Your task to perform on an android device: When is my next appointment? Image 0: 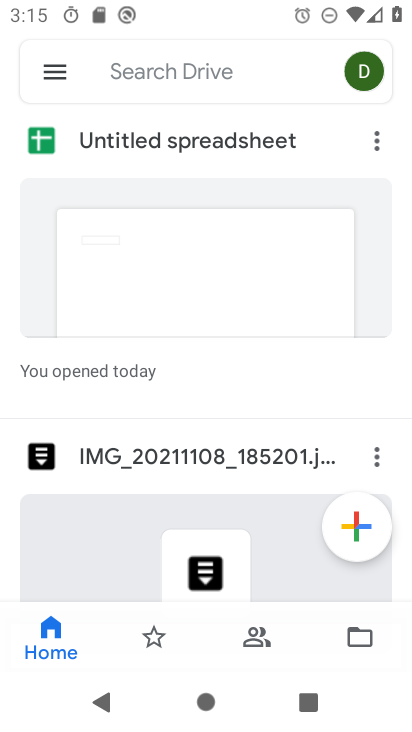
Step 0: drag from (228, 497) to (316, 198)
Your task to perform on an android device: When is my next appointment? Image 1: 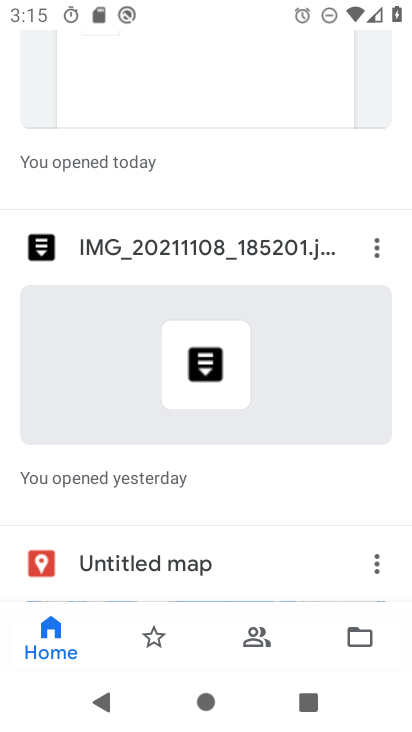
Step 1: press home button
Your task to perform on an android device: When is my next appointment? Image 2: 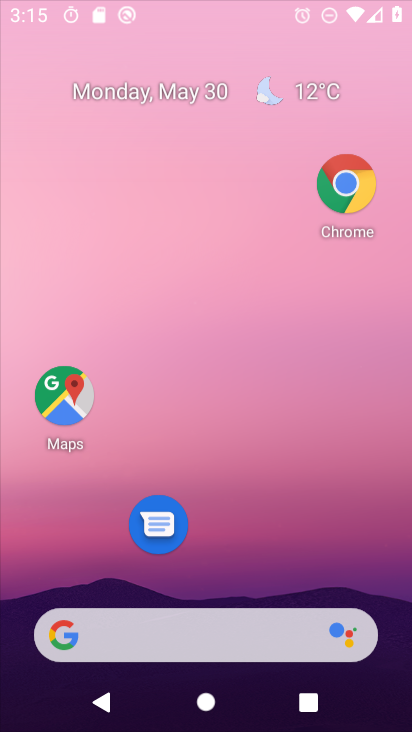
Step 2: drag from (229, 574) to (346, 1)
Your task to perform on an android device: When is my next appointment? Image 3: 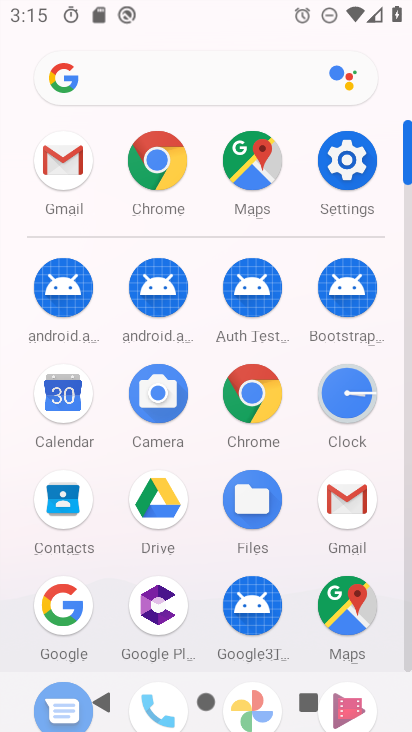
Step 3: click (66, 382)
Your task to perform on an android device: When is my next appointment? Image 4: 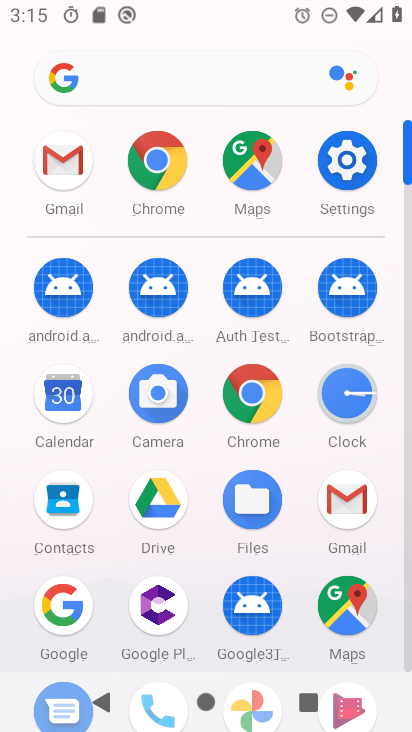
Step 4: click (66, 382)
Your task to perform on an android device: When is my next appointment? Image 5: 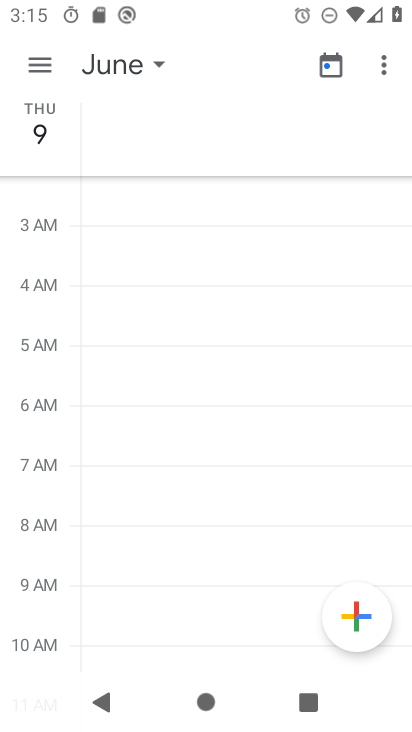
Step 5: click (141, 68)
Your task to perform on an android device: When is my next appointment? Image 6: 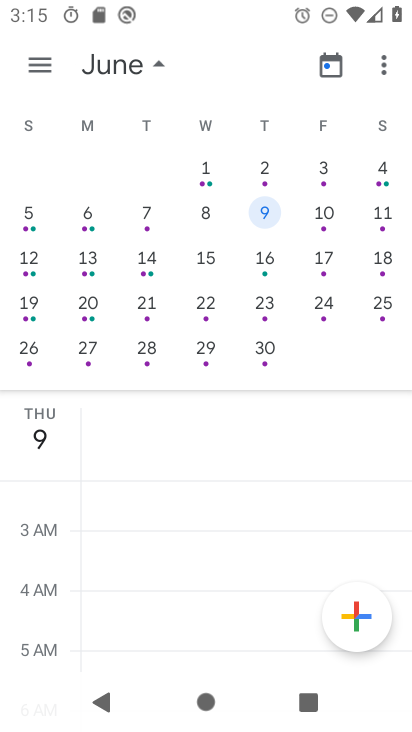
Step 6: drag from (59, 317) to (404, 224)
Your task to perform on an android device: When is my next appointment? Image 7: 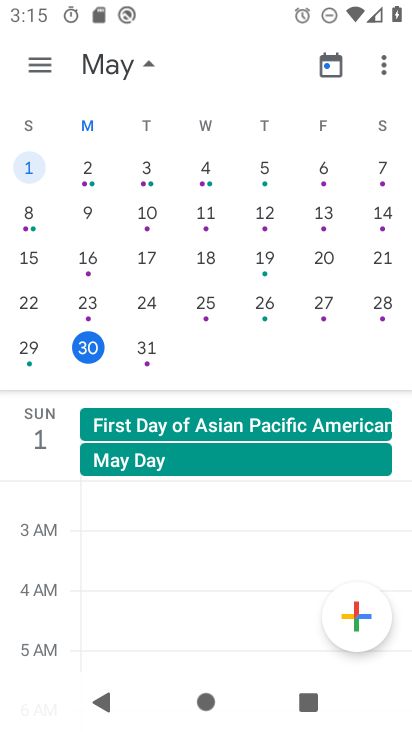
Step 7: click (106, 338)
Your task to perform on an android device: When is my next appointment? Image 8: 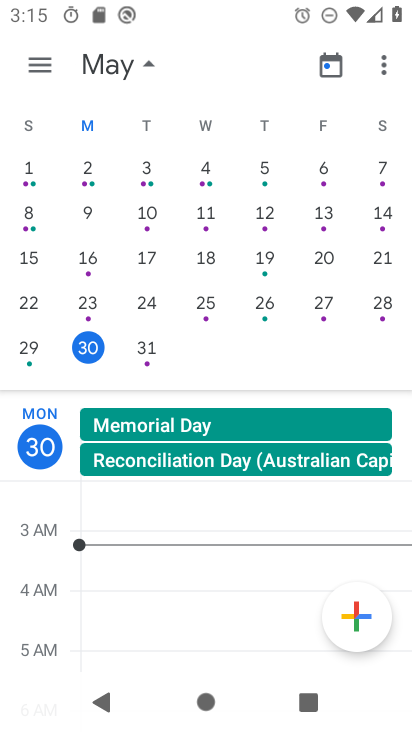
Step 8: task complete